Your task to perform on an android device: Open Google Maps and go to "Timeline" Image 0: 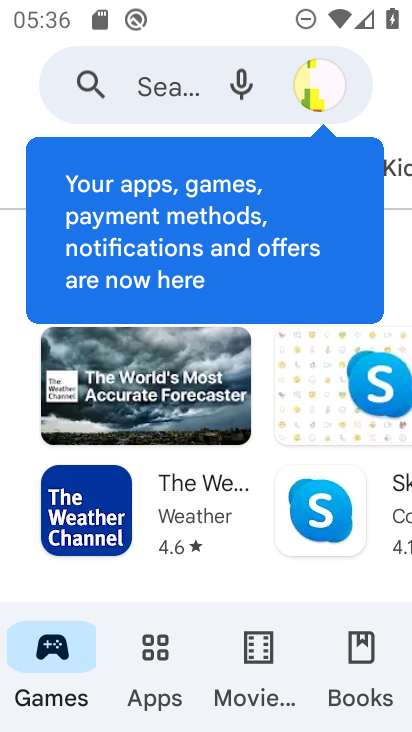
Step 0: press back button
Your task to perform on an android device: Open Google Maps and go to "Timeline" Image 1: 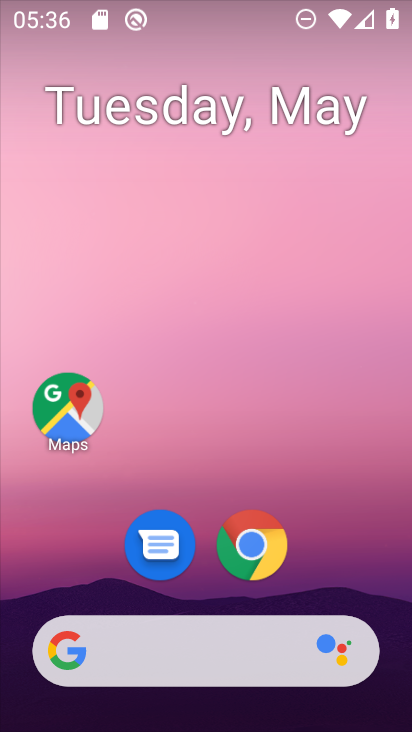
Step 1: drag from (353, 527) to (254, 0)
Your task to perform on an android device: Open Google Maps and go to "Timeline" Image 2: 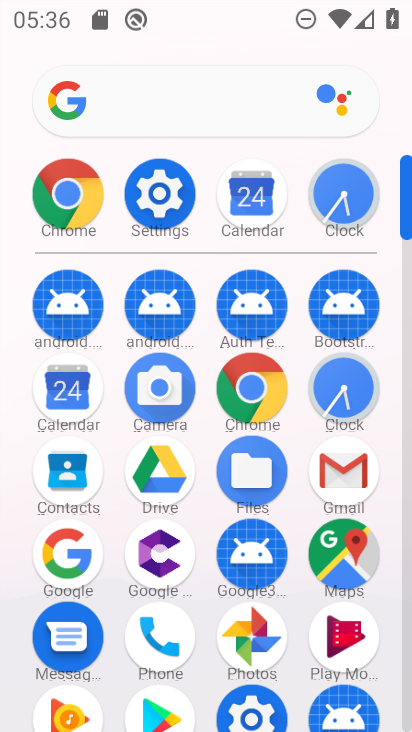
Step 2: drag from (11, 522) to (19, 228)
Your task to perform on an android device: Open Google Maps and go to "Timeline" Image 3: 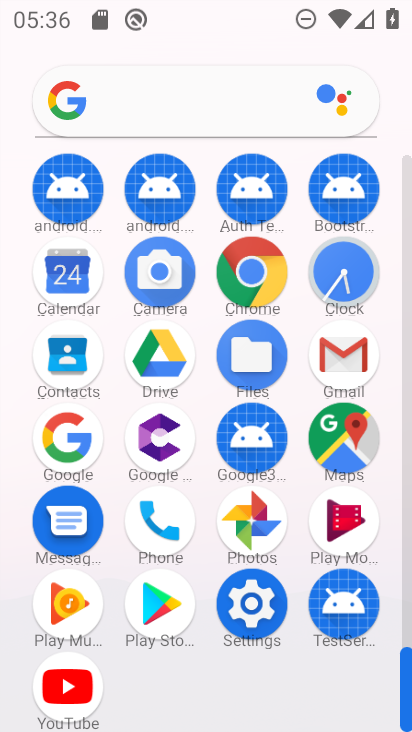
Step 3: click (346, 433)
Your task to perform on an android device: Open Google Maps and go to "Timeline" Image 4: 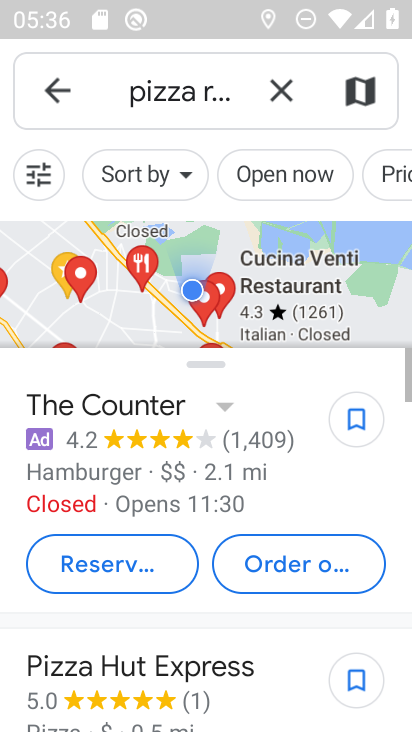
Step 4: click (42, 76)
Your task to perform on an android device: Open Google Maps and go to "Timeline" Image 5: 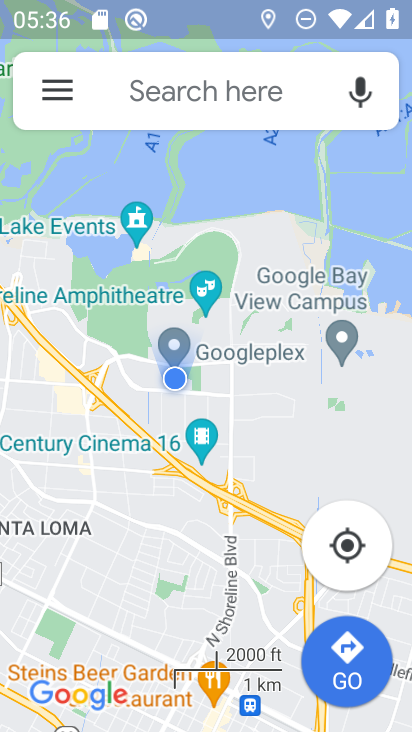
Step 5: click (50, 83)
Your task to perform on an android device: Open Google Maps and go to "Timeline" Image 6: 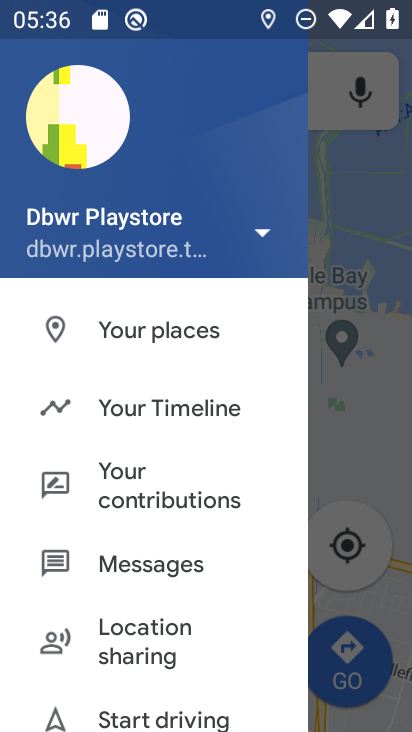
Step 6: click (181, 411)
Your task to perform on an android device: Open Google Maps and go to "Timeline" Image 7: 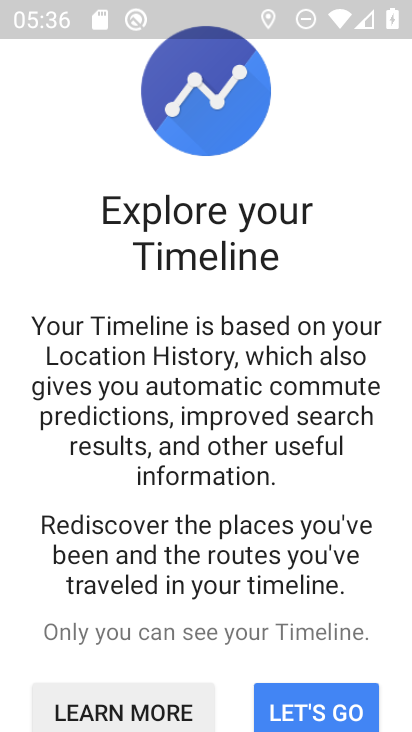
Step 7: click (303, 701)
Your task to perform on an android device: Open Google Maps and go to "Timeline" Image 8: 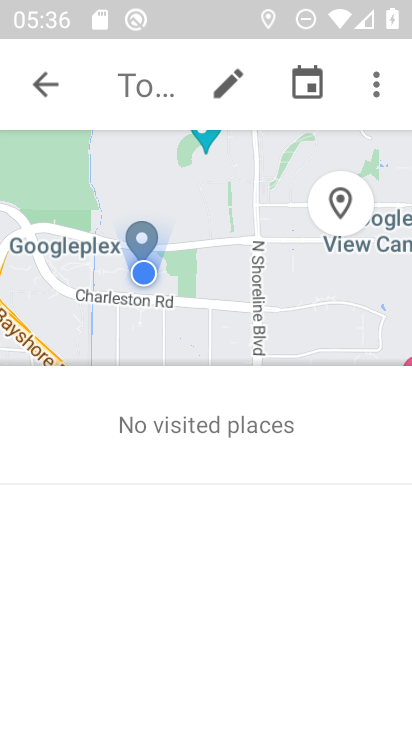
Step 8: task complete